Your task to perform on an android device: Open Yahoo.com Image 0: 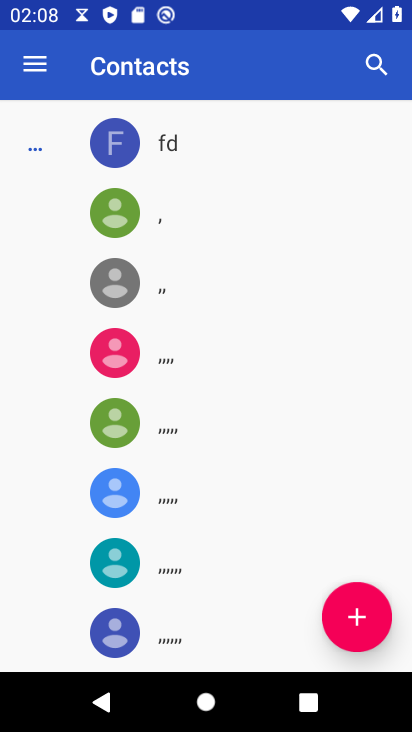
Step 0: press home button
Your task to perform on an android device: Open Yahoo.com Image 1: 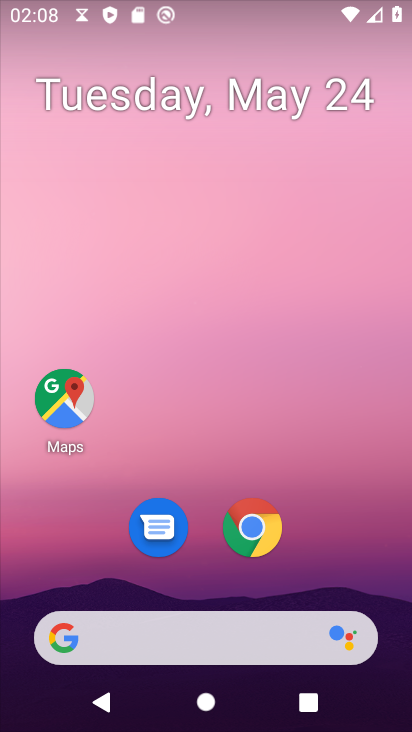
Step 1: click (251, 534)
Your task to perform on an android device: Open Yahoo.com Image 2: 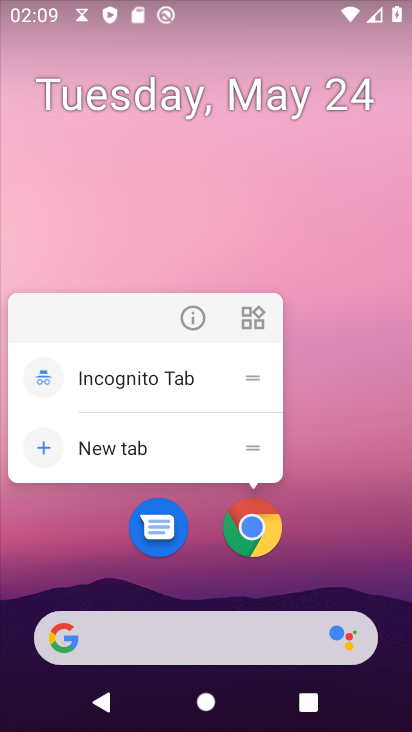
Step 2: click (251, 533)
Your task to perform on an android device: Open Yahoo.com Image 3: 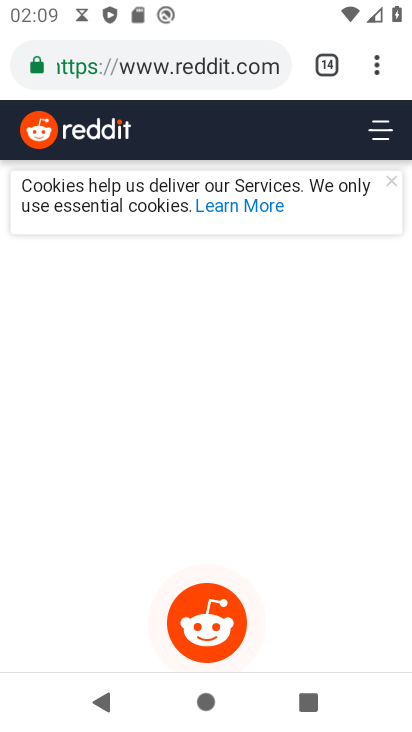
Step 3: drag from (381, 61) to (268, 136)
Your task to perform on an android device: Open Yahoo.com Image 4: 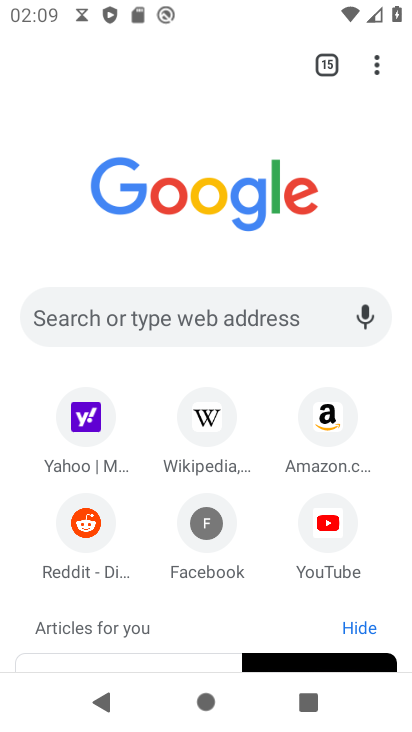
Step 4: click (89, 431)
Your task to perform on an android device: Open Yahoo.com Image 5: 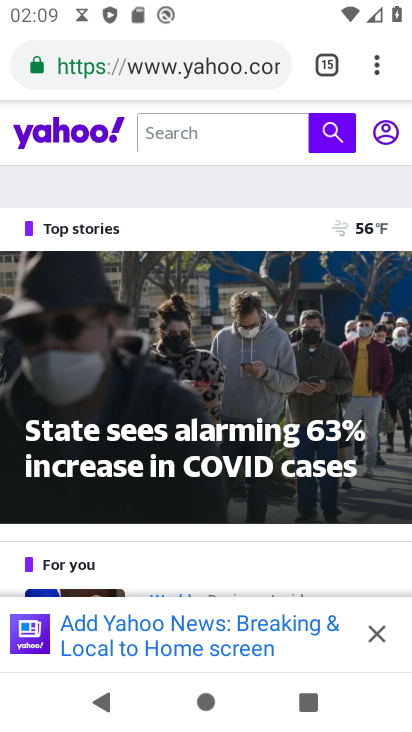
Step 5: task complete